Your task to perform on an android device: Go to Wikipedia Image 0: 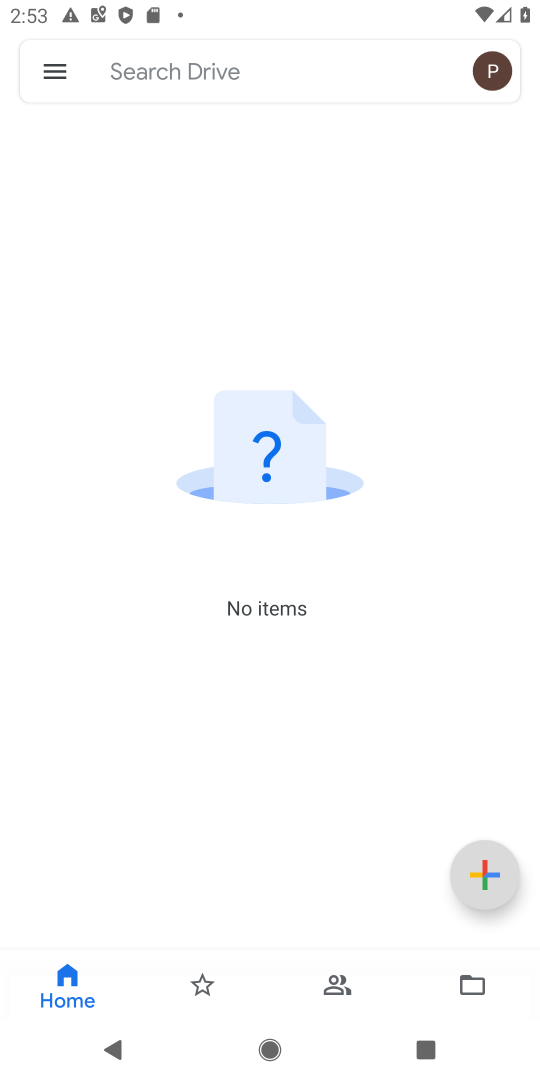
Step 0: press back button
Your task to perform on an android device: Go to Wikipedia Image 1: 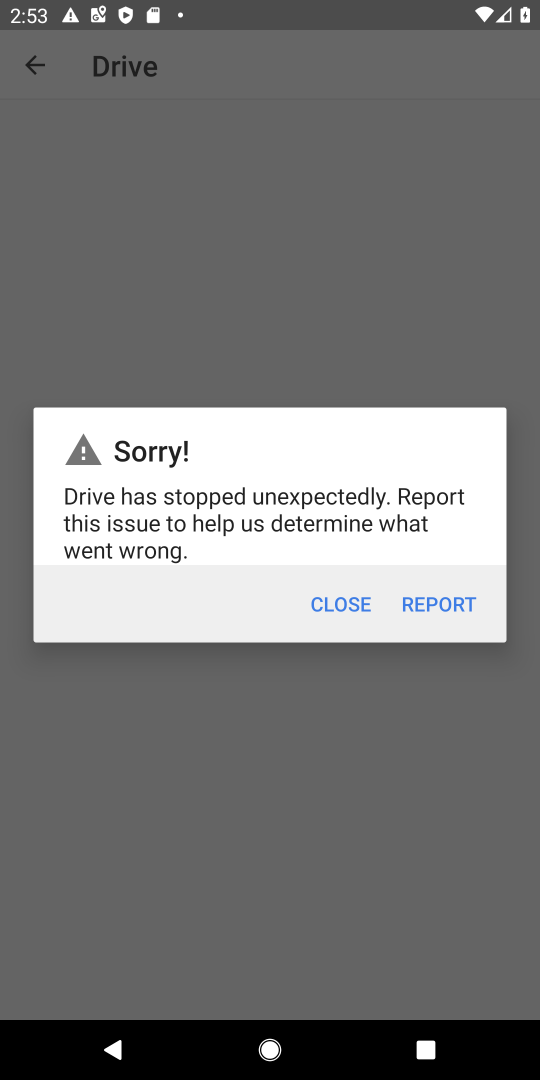
Step 1: press back button
Your task to perform on an android device: Go to Wikipedia Image 2: 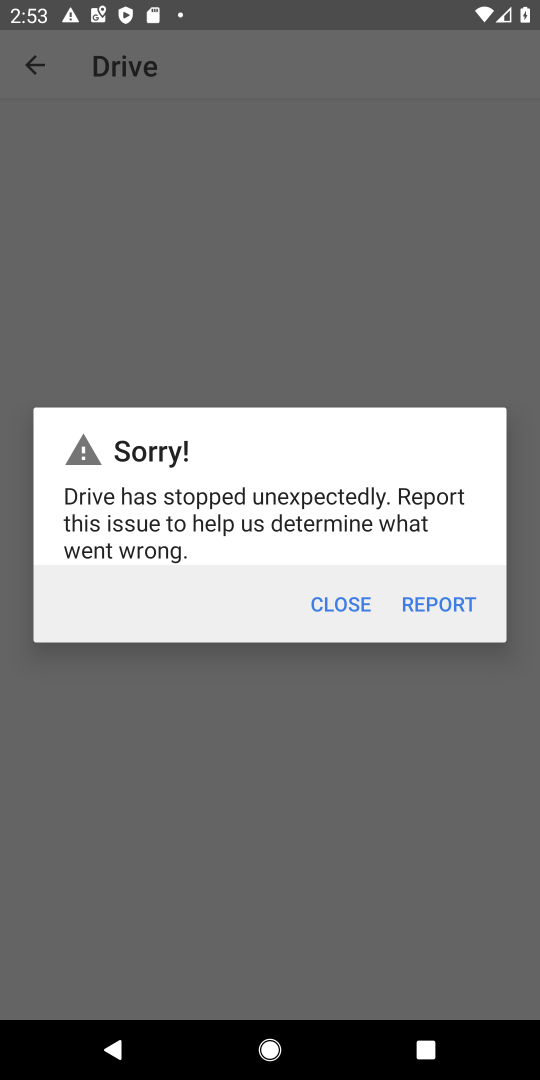
Step 2: click (330, 611)
Your task to perform on an android device: Go to Wikipedia Image 3: 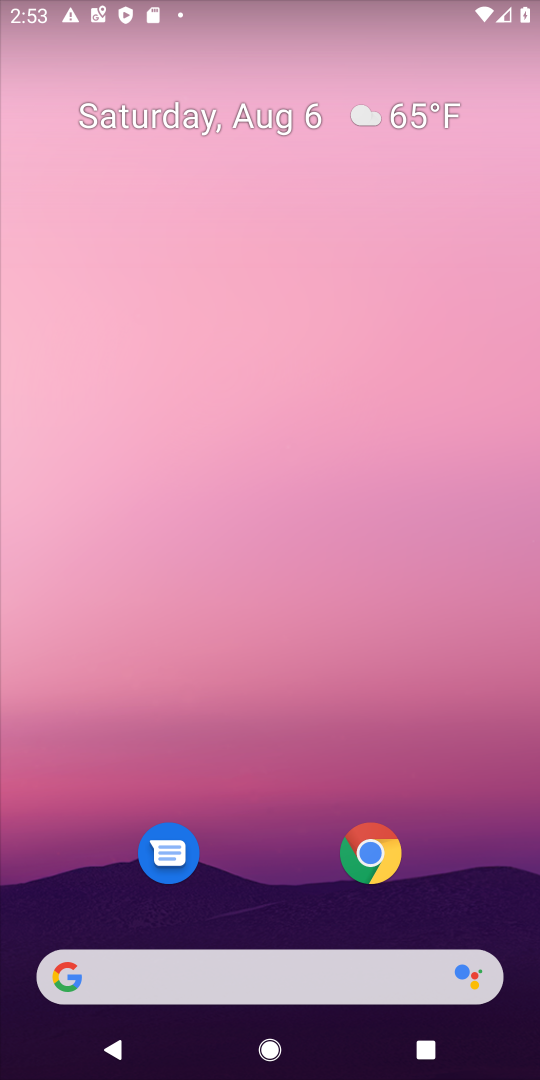
Step 3: click (364, 862)
Your task to perform on an android device: Go to Wikipedia Image 4: 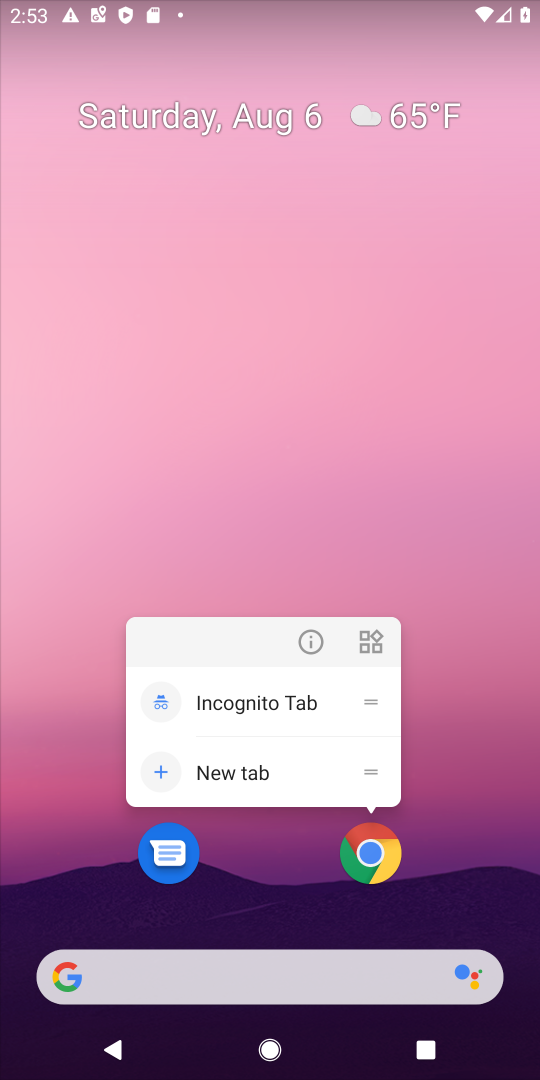
Step 4: click (366, 873)
Your task to perform on an android device: Go to Wikipedia Image 5: 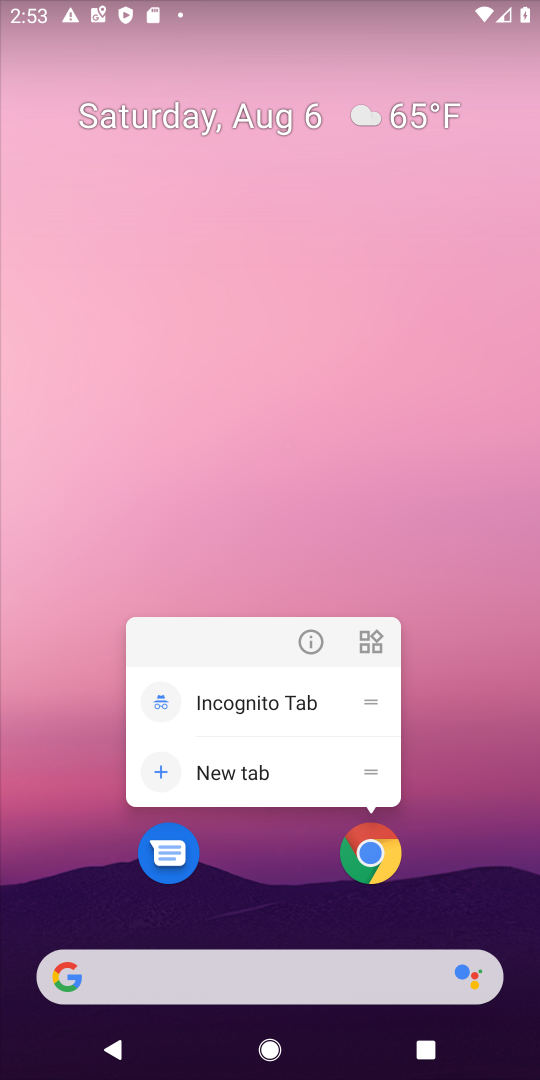
Step 5: click (373, 871)
Your task to perform on an android device: Go to Wikipedia Image 6: 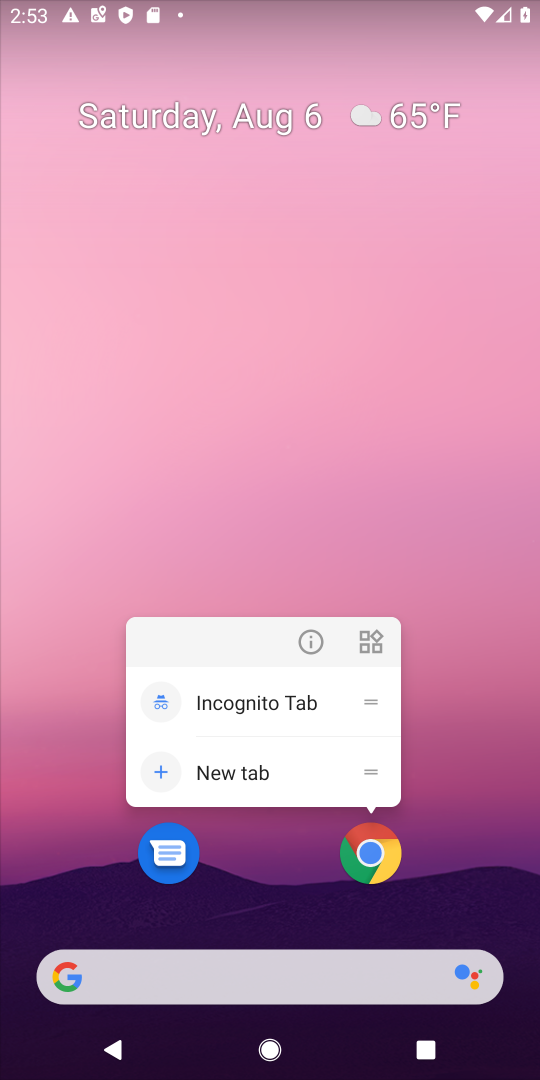
Step 6: click (375, 862)
Your task to perform on an android device: Go to Wikipedia Image 7: 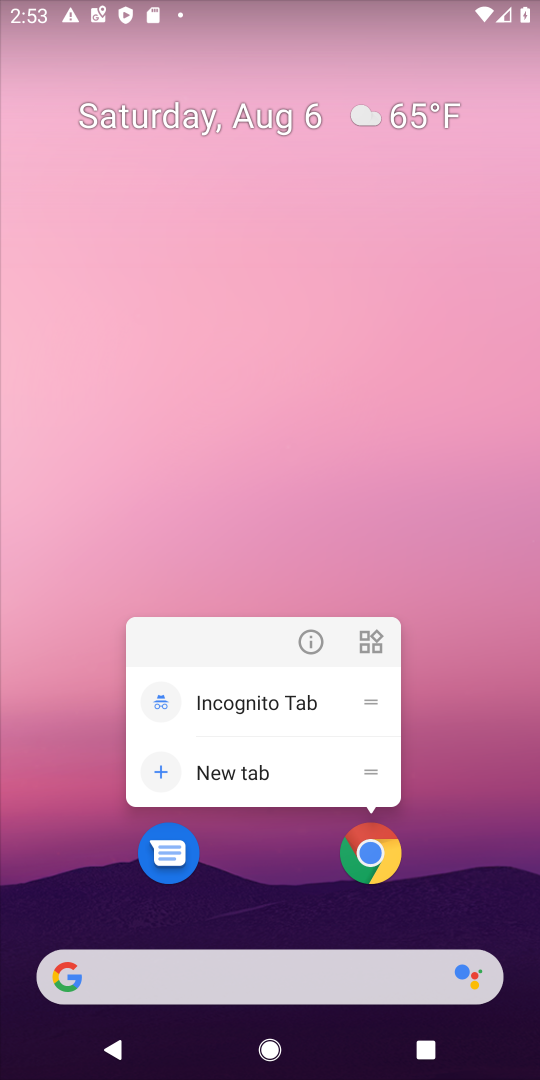
Step 7: click (370, 841)
Your task to perform on an android device: Go to Wikipedia Image 8: 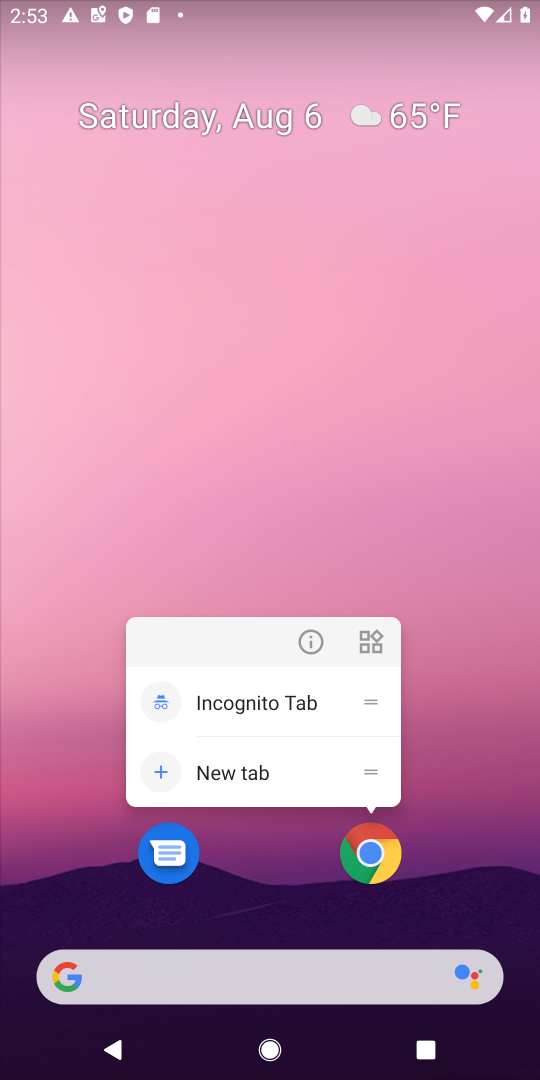
Step 8: click (370, 855)
Your task to perform on an android device: Go to Wikipedia Image 9: 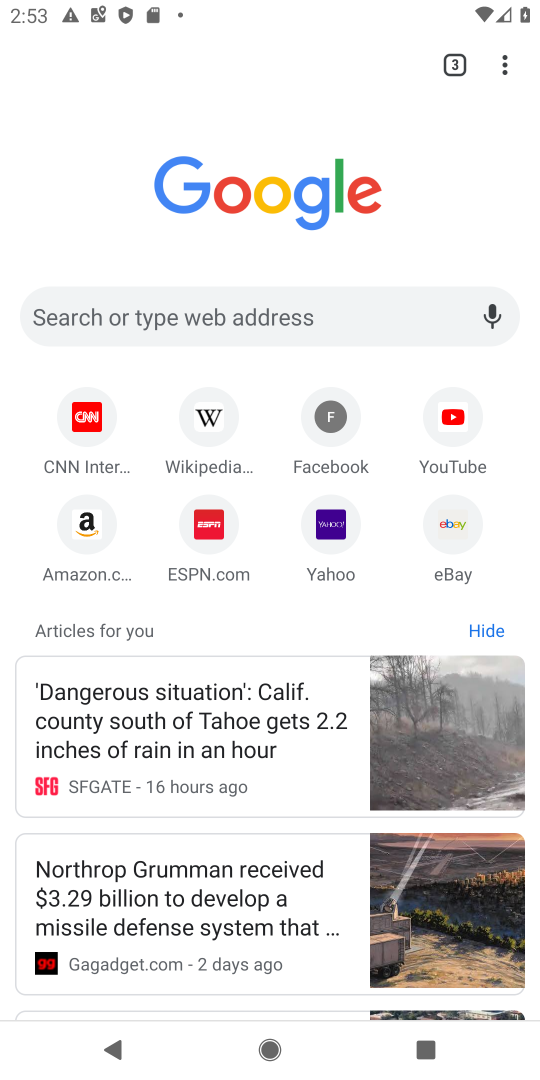
Step 9: click (216, 411)
Your task to perform on an android device: Go to Wikipedia Image 10: 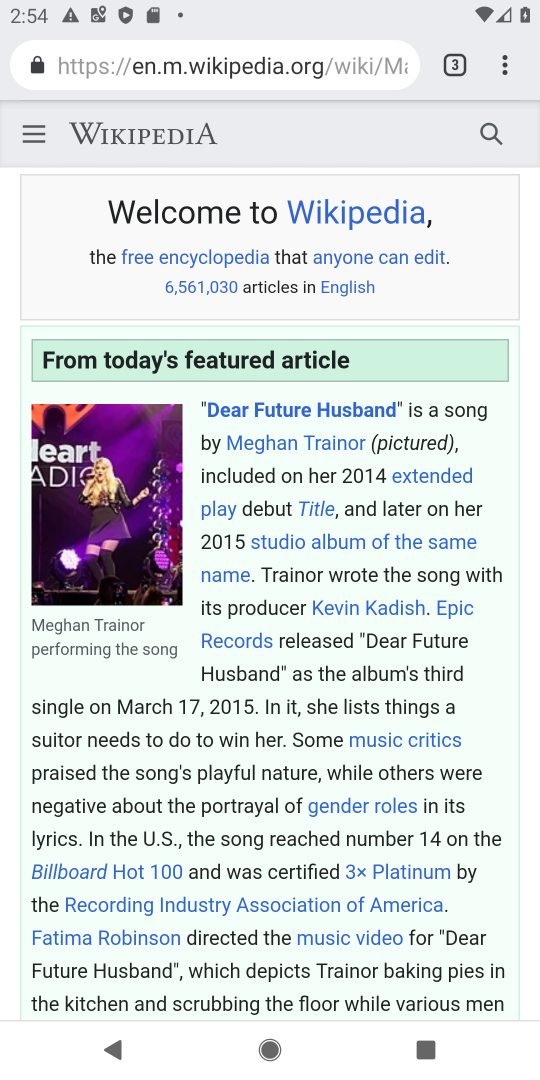
Step 10: task complete